Your task to perform on an android device: What's the weather going to be tomorrow? Image 0: 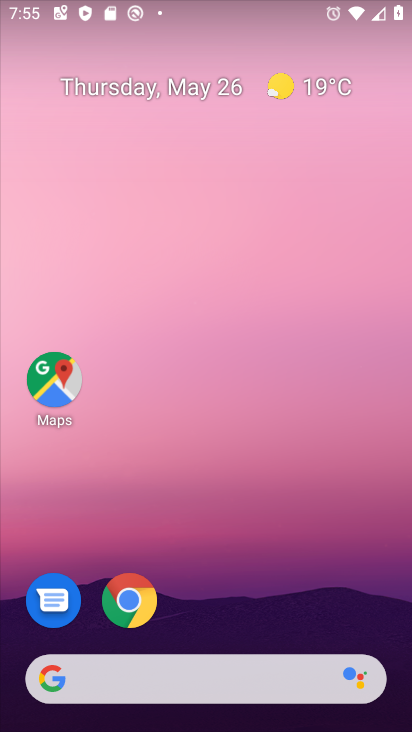
Step 0: press home button
Your task to perform on an android device: What's the weather going to be tomorrow? Image 1: 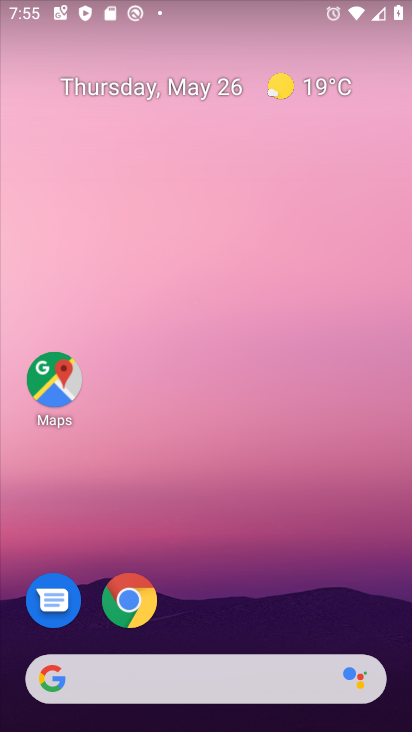
Step 1: click (55, 687)
Your task to perform on an android device: What's the weather going to be tomorrow? Image 2: 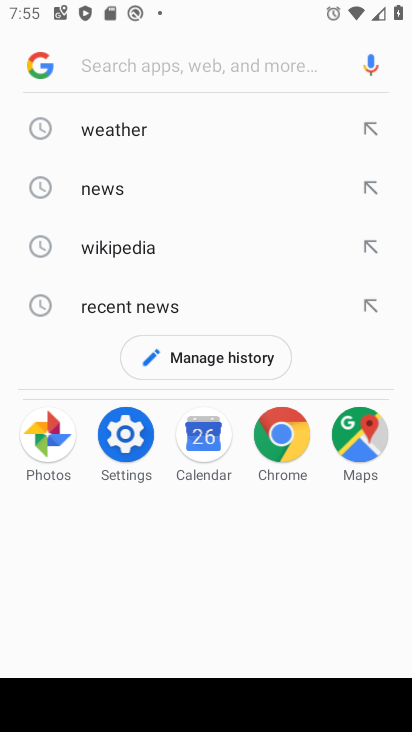
Step 2: type "weather going to be tomorrow?"
Your task to perform on an android device: What's the weather going to be tomorrow? Image 3: 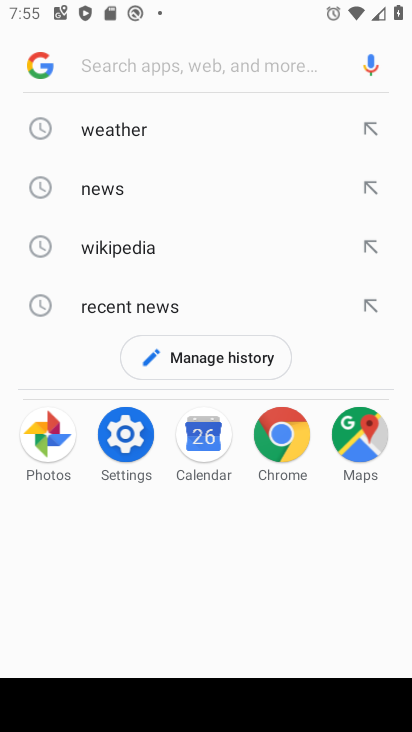
Step 3: click (224, 66)
Your task to perform on an android device: What's the weather going to be tomorrow? Image 4: 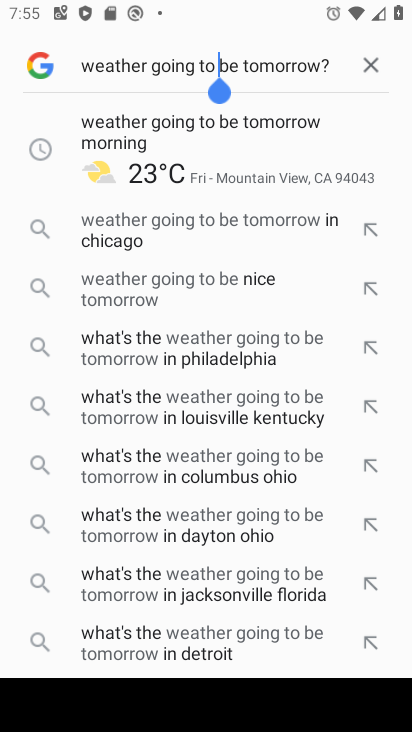
Step 4: click (205, 120)
Your task to perform on an android device: What's the weather going to be tomorrow? Image 5: 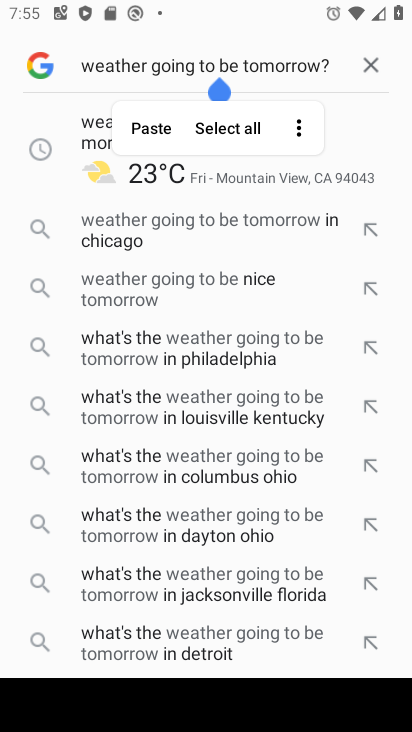
Step 5: click (103, 130)
Your task to perform on an android device: What's the weather going to be tomorrow? Image 6: 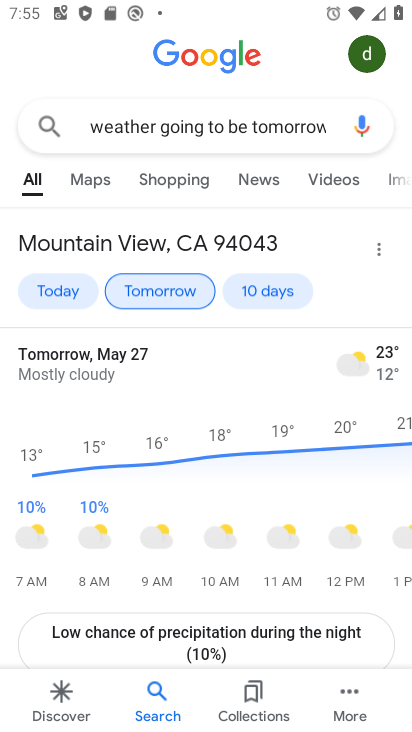
Step 6: task complete